Your task to perform on an android device: Go to eBay Image 0: 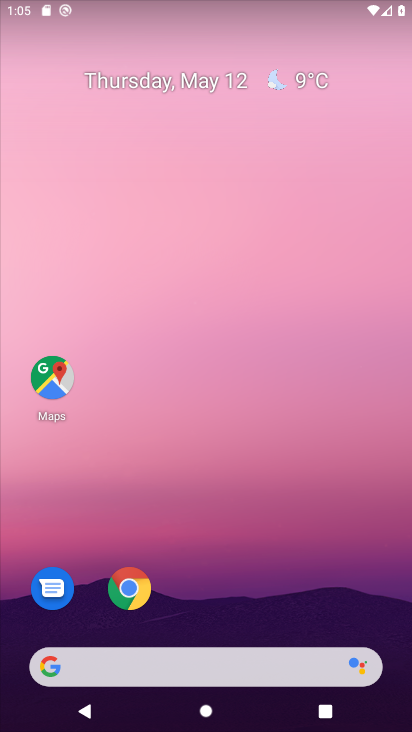
Step 0: drag from (299, 569) to (361, 20)
Your task to perform on an android device: Go to eBay Image 1: 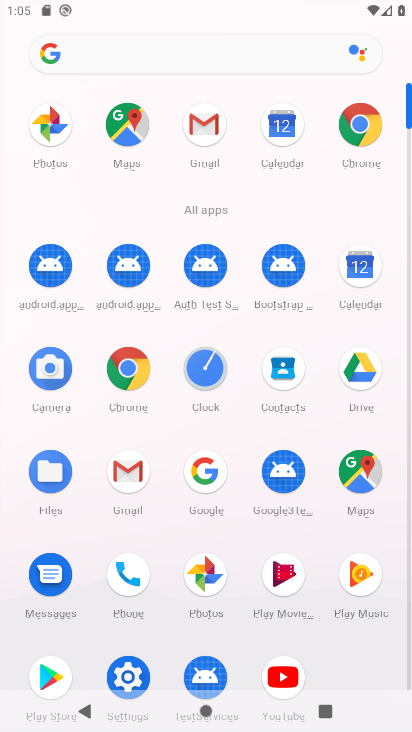
Step 1: click (344, 123)
Your task to perform on an android device: Go to eBay Image 2: 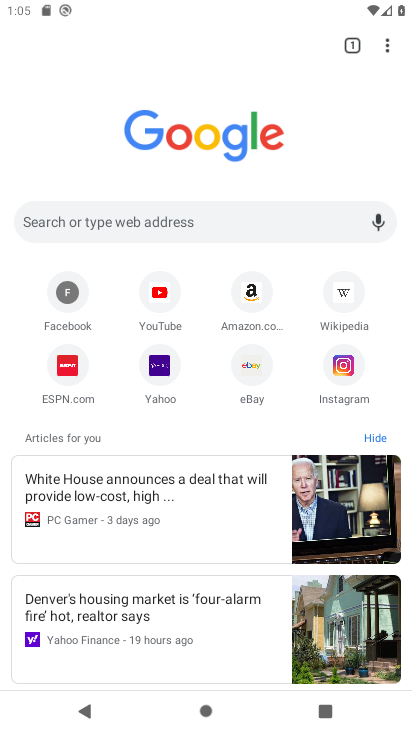
Step 2: click (245, 368)
Your task to perform on an android device: Go to eBay Image 3: 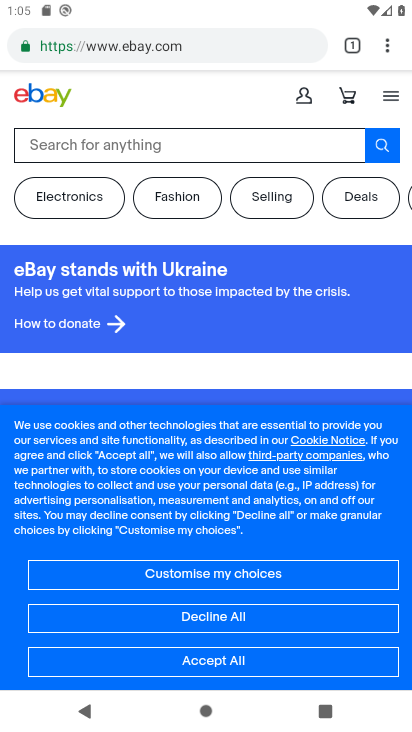
Step 3: task complete